Your task to perform on an android device: turn notification dots off Image 0: 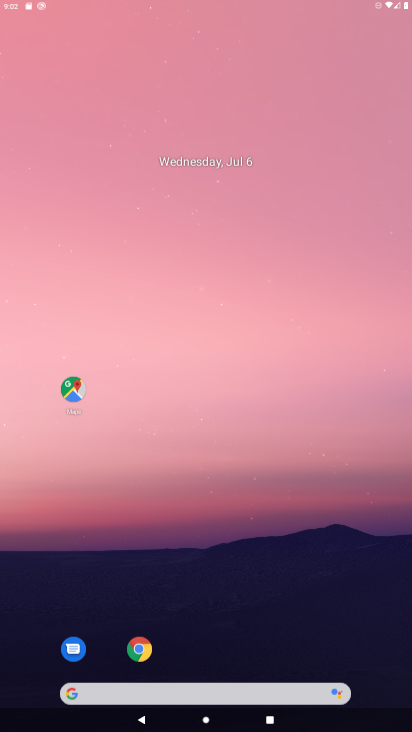
Step 0: click (246, 186)
Your task to perform on an android device: turn notification dots off Image 1: 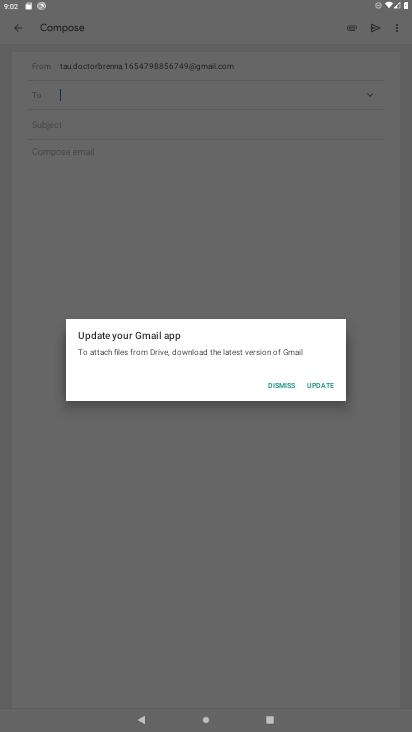
Step 1: click (269, 384)
Your task to perform on an android device: turn notification dots off Image 2: 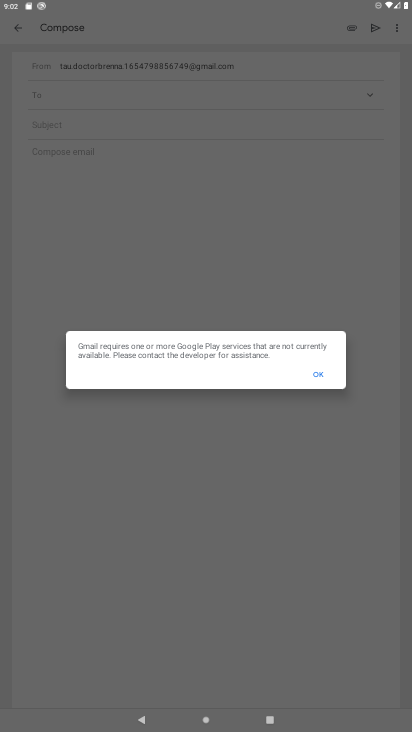
Step 2: click (320, 376)
Your task to perform on an android device: turn notification dots off Image 3: 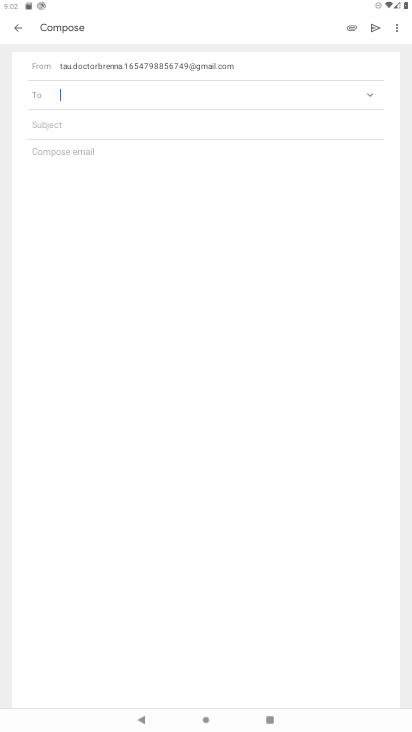
Step 3: click (20, 22)
Your task to perform on an android device: turn notification dots off Image 4: 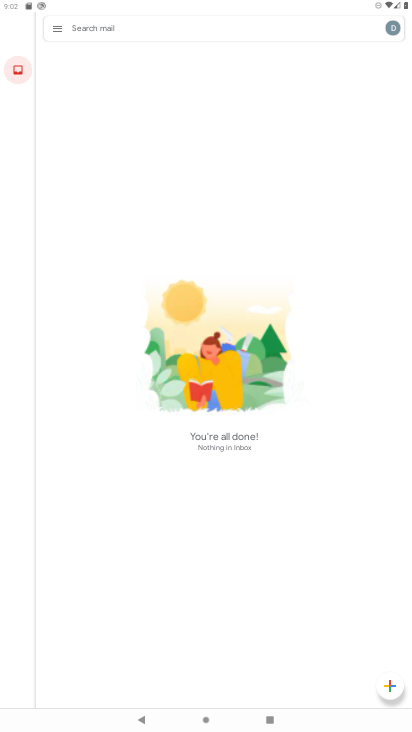
Step 4: press back button
Your task to perform on an android device: turn notification dots off Image 5: 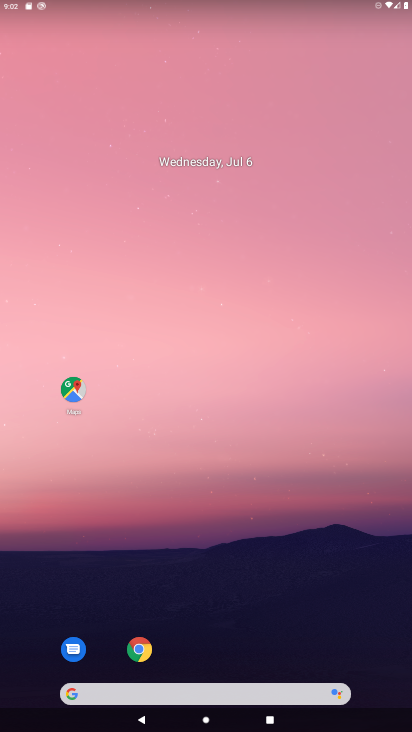
Step 5: drag from (235, 706) to (216, 17)
Your task to perform on an android device: turn notification dots off Image 6: 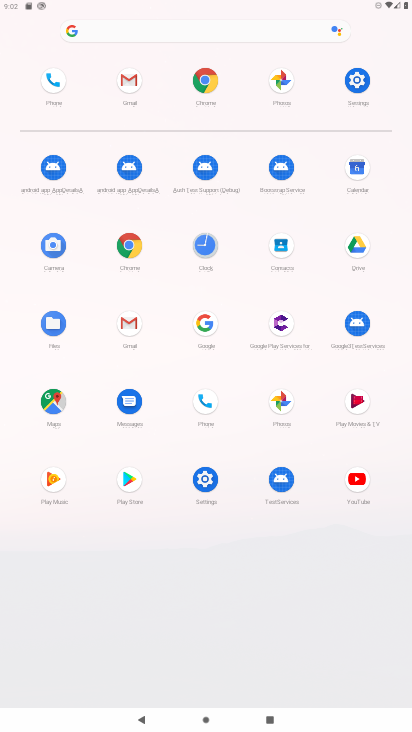
Step 6: click (360, 81)
Your task to perform on an android device: turn notification dots off Image 7: 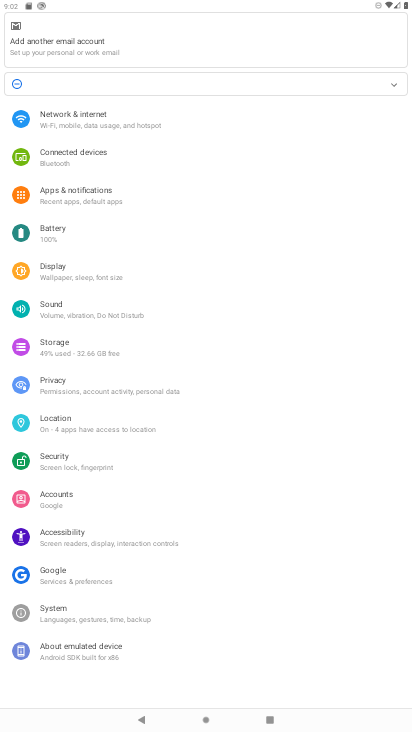
Step 7: click (85, 198)
Your task to perform on an android device: turn notification dots off Image 8: 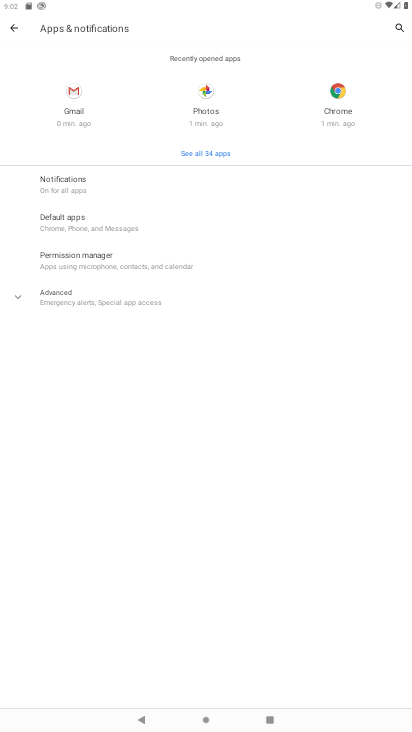
Step 8: click (70, 189)
Your task to perform on an android device: turn notification dots off Image 9: 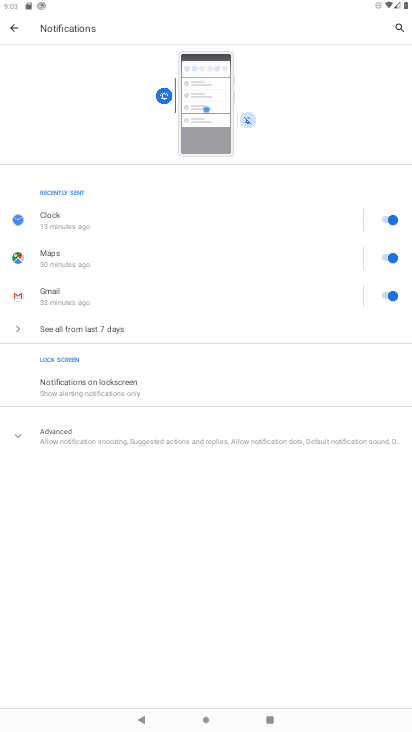
Step 9: click (60, 432)
Your task to perform on an android device: turn notification dots off Image 10: 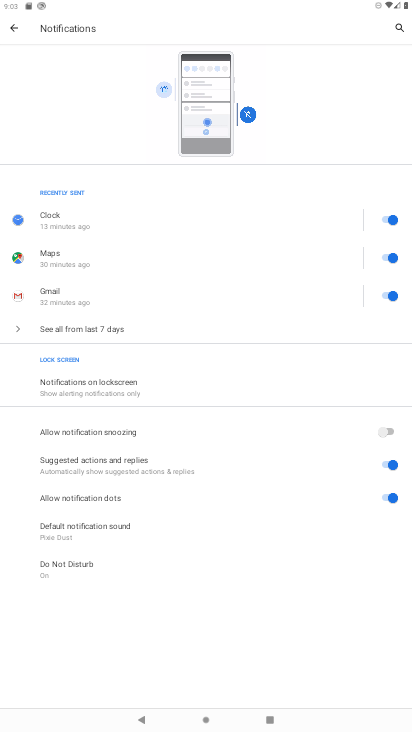
Step 10: click (392, 502)
Your task to perform on an android device: turn notification dots off Image 11: 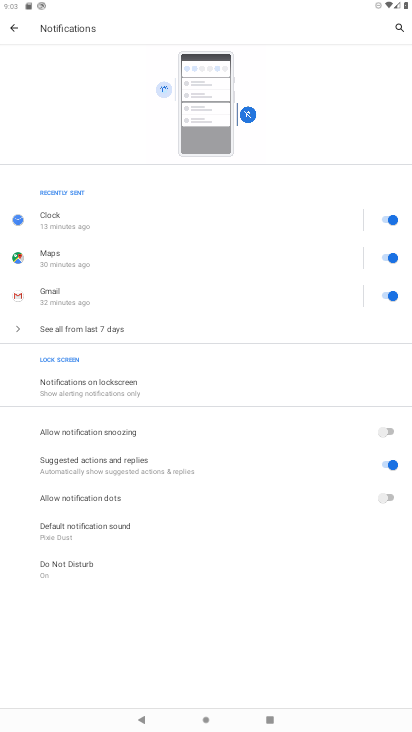
Step 11: task complete